Your task to perform on an android device: visit the assistant section in the google photos Image 0: 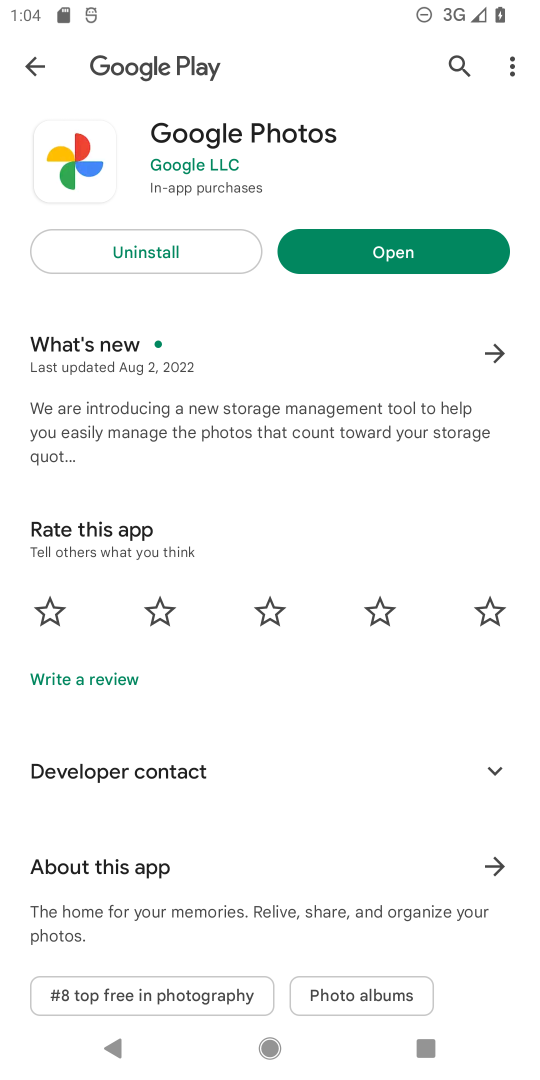
Step 0: press home button
Your task to perform on an android device: visit the assistant section in the google photos Image 1: 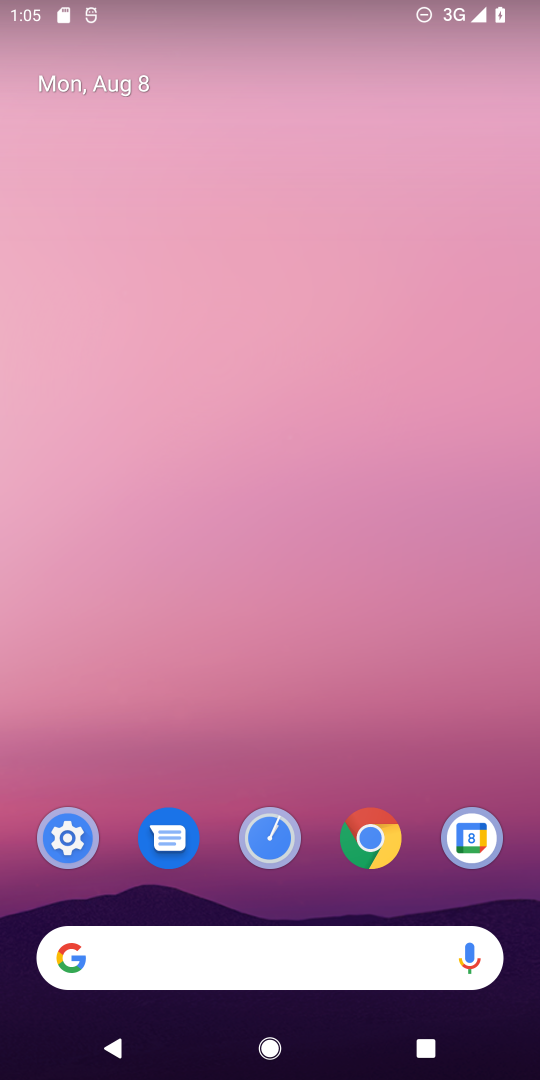
Step 1: drag from (219, 875) to (236, 173)
Your task to perform on an android device: visit the assistant section in the google photos Image 2: 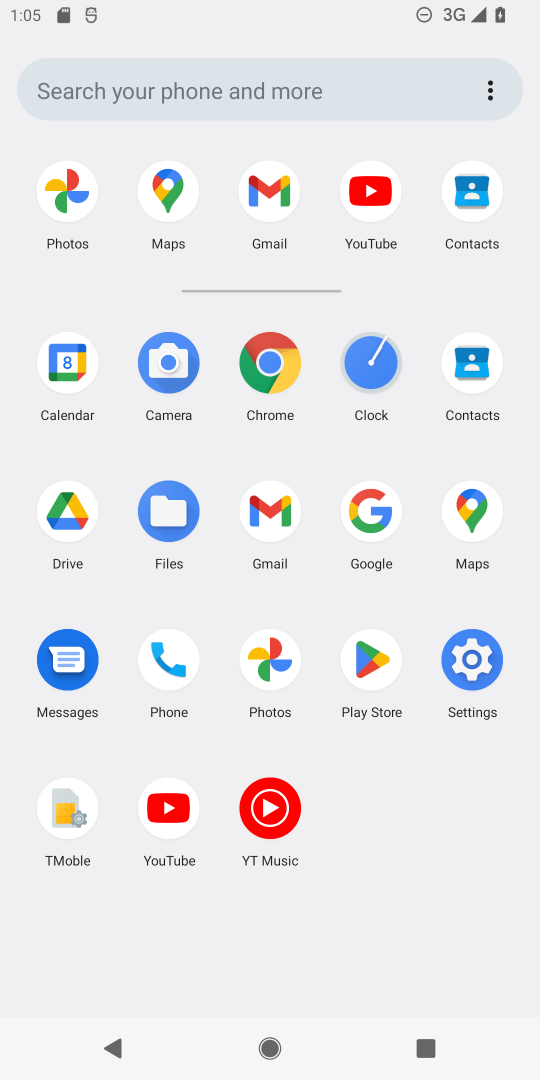
Step 2: click (70, 187)
Your task to perform on an android device: visit the assistant section in the google photos Image 3: 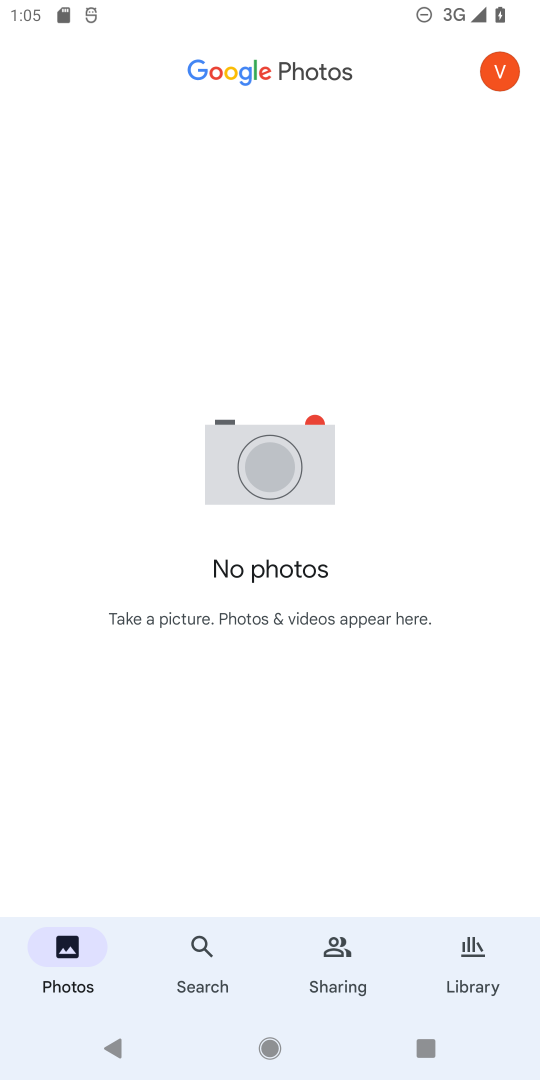
Step 3: task complete